Your task to perform on an android device: Open sound settings Image 0: 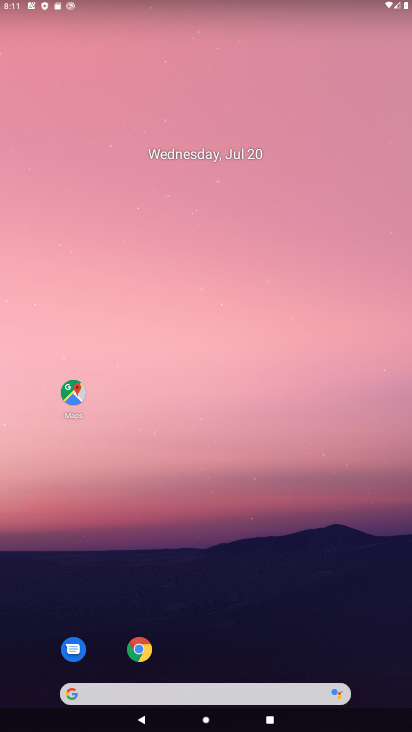
Step 0: drag from (221, 666) to (149, 182)
Your task to perform on an android device: Open sound settings Image 1: 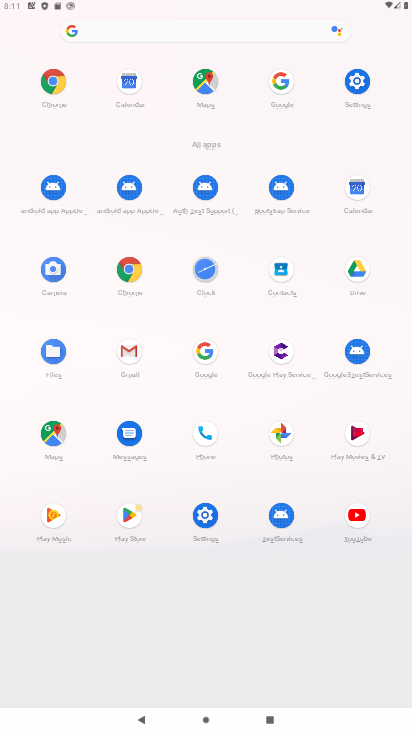
Step 1: click (197, 513)
Your task to perform on an android device: Open sound settings Image 2: 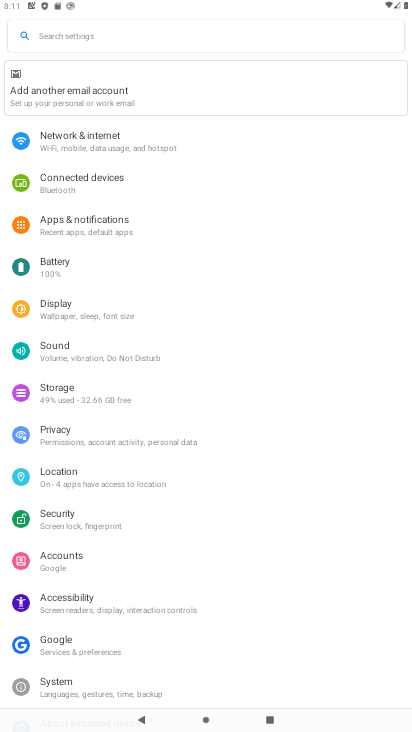
Step 2: click (46, 345)
Your task to perform on an android device: Open sound settings Image 3: 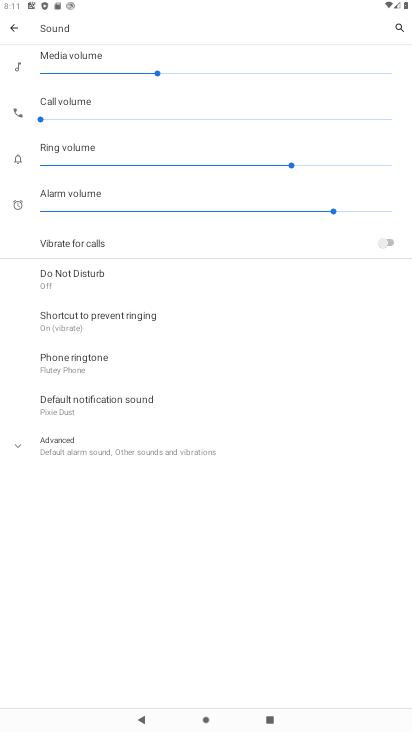
Step 3: task complete